Your task to perform on an android device: open sync settings in chrome Image 0: 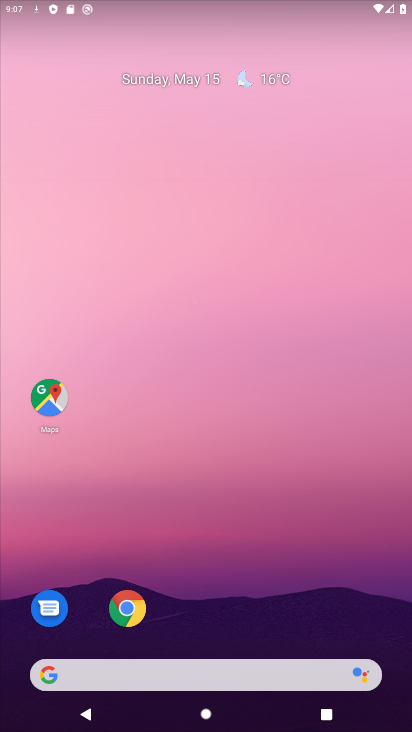
Step 0: drag from (205, 650) to (141, 61)
Your task to perform on an android device: open sync settings in chrome Image 1: 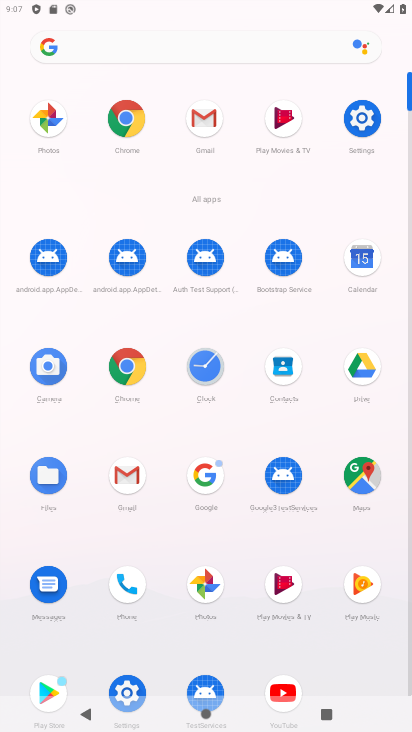
Step 1: click (112, 128)
Your task to perform on an android device: open sync settings in chrome Image 2: 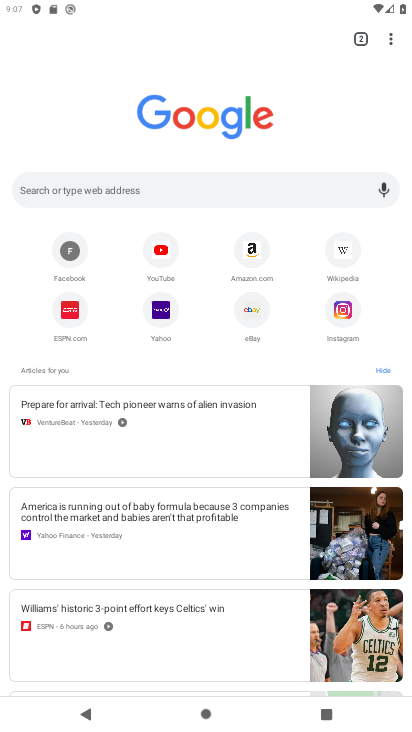
Step 2: click (386, 43)
Your task to perform on an android device: open sync settings in chrome Image 3: 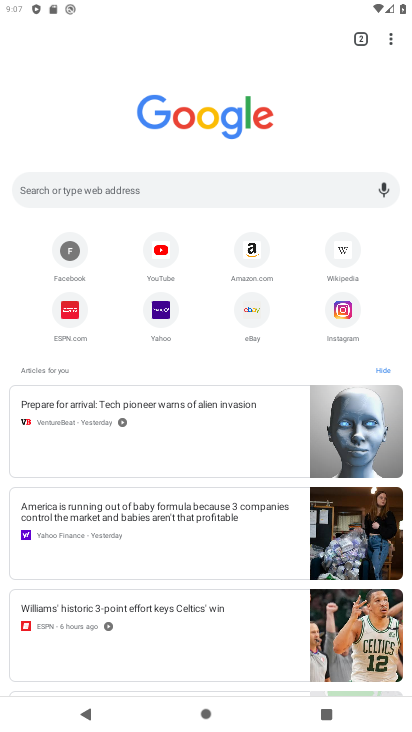
Step 3: click (395, 35)
Your task to perform on an android device: open sync settings in chrome Image 4: 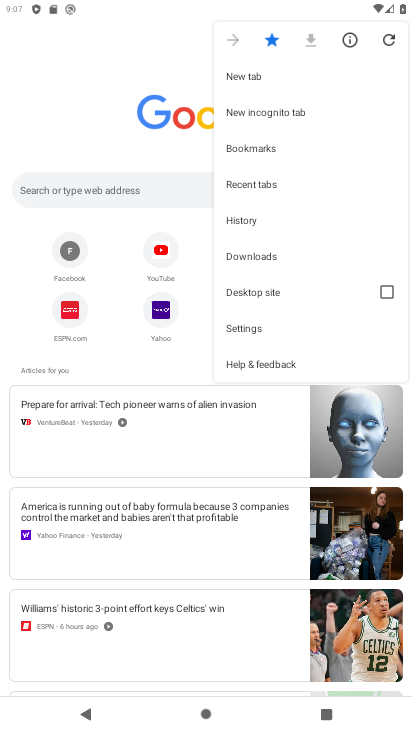
Step 4: click (237, 325)
Your task to perform on an android device: open sync settings in chrome Image 5: 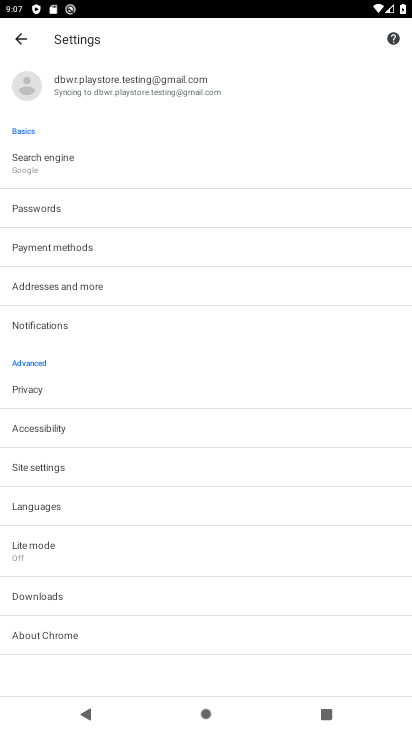
Step 5: click (48, 467)
Your task to perform on an android device: open sync settings in chrome Image 6: 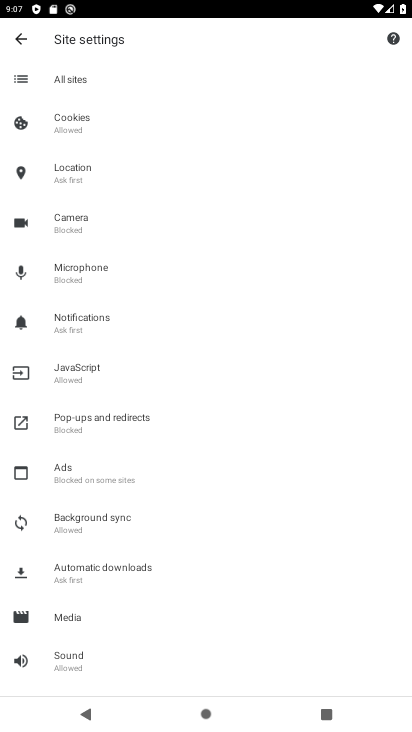
Step 6: click (21, 48)
Your task to perform on an android device: open sync settings in chrome Image 7: 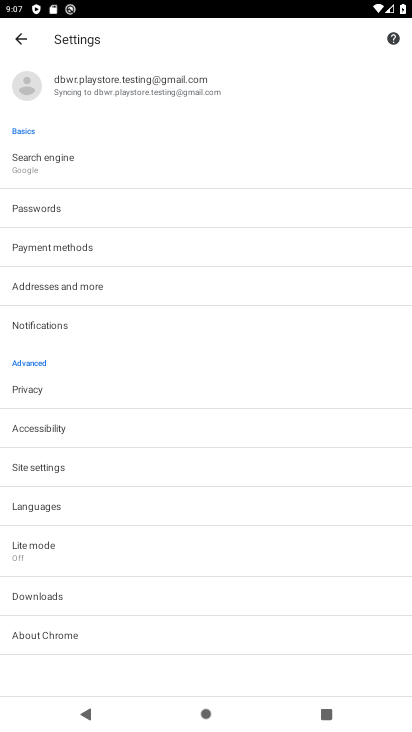
Step 7: click (88, 86)
Your task to perform on an android device: open sync settings in chrome Image 8: 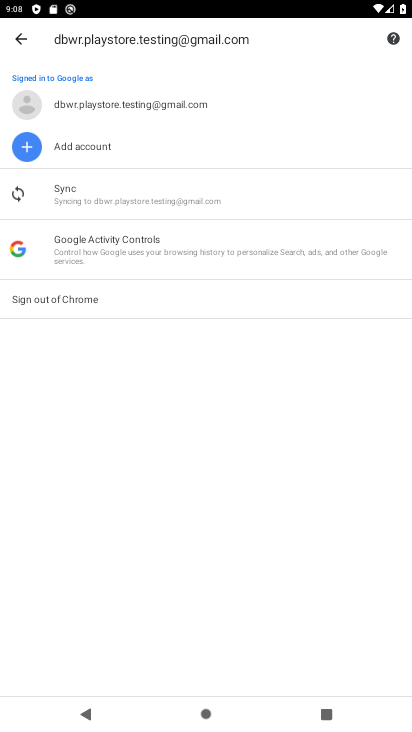
Step 8: click (58, 204)
Your task to perform on an android device: open sync settings in chrome Image 9: 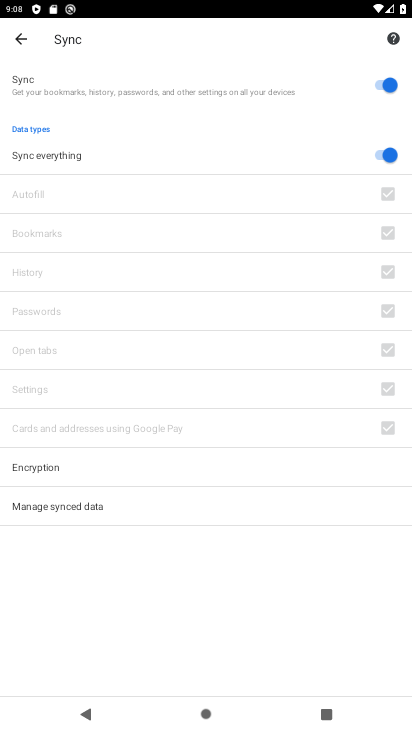
Step 9: task complete